Your task to perform on an android device: set default search engine in the chrome app Image 0: 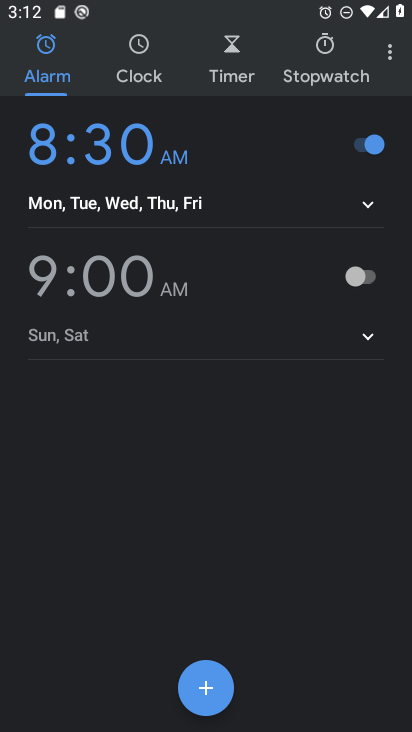
Step 0: press home button
Your task to perform on an android device: set default search engine in the chrome app Image 1: 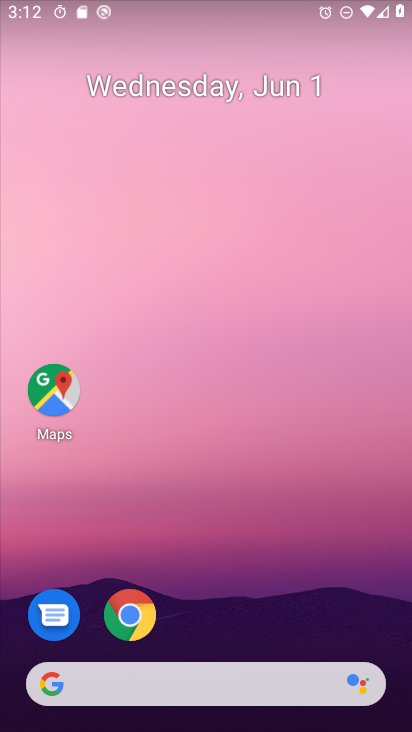
Step 1: drag from (248, 660) to (164, 0)
Your task to perform on an android device: set default search engine in the chrome app Image 2: 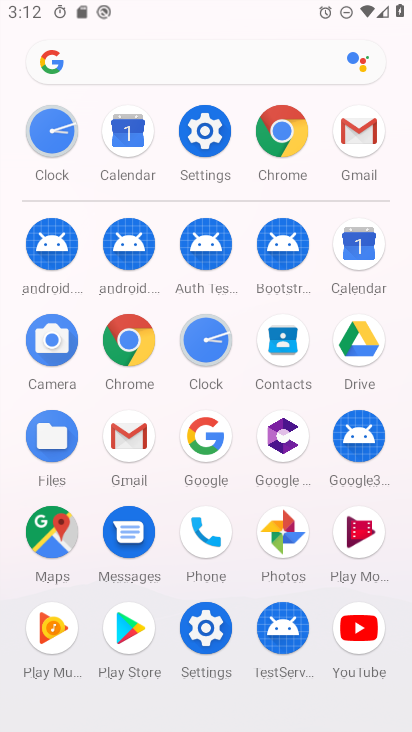
Step 2: click (127, 338)
Your task to perform on an android device: set default search engine in the chrome app Image 3: 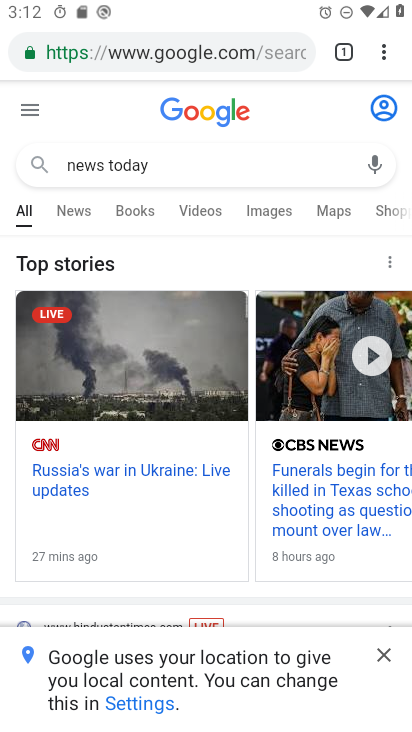
Step 3: drag from (385, 50) to (217, 591)
Your task to perform on an android device: set default search engine in the chrome app Image 4: 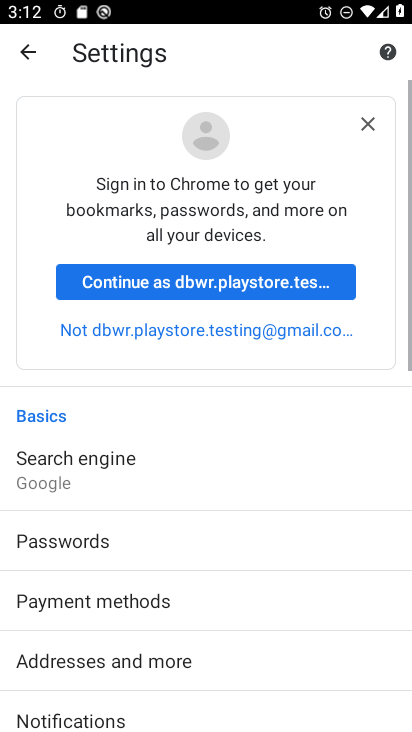
Step 4: drag from (208, 577) to (201, 352)
Your task to perform on an android device: set default search engine in the chrome app Image 5: 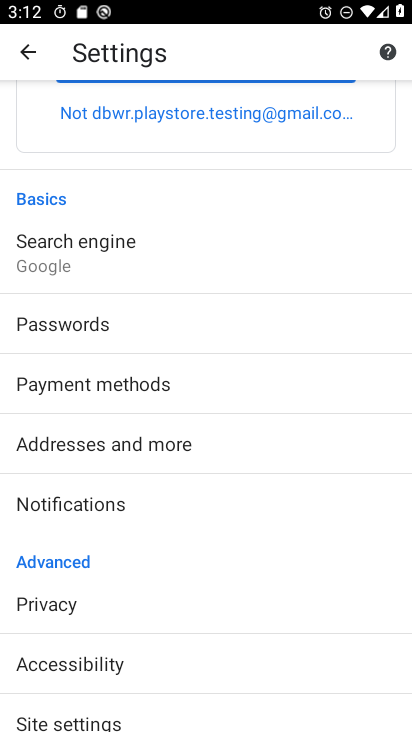
Step 5: click (148, 371)
Your task to perform on an android device: set default search engine in the chrome app Image 6: 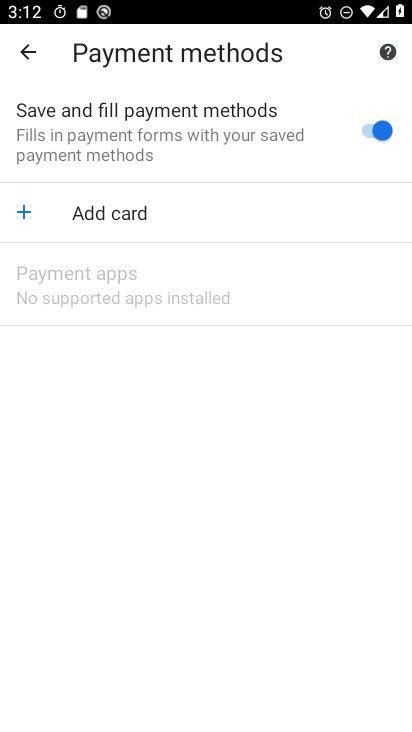
Step 6: press back button
Your task to perform on an android device: set default search engine in the chrome app Image 7: 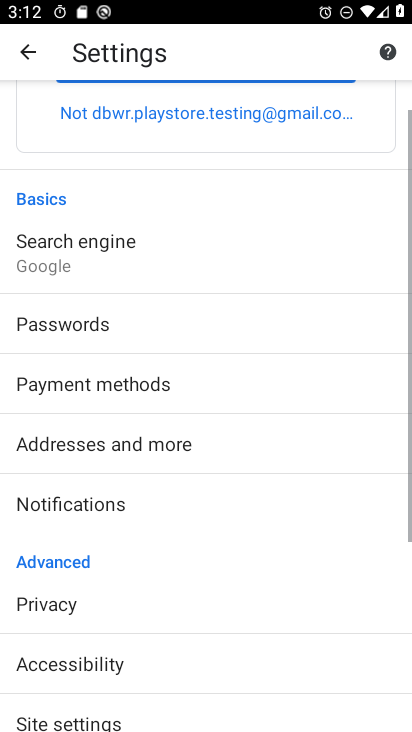
Step 7: click (125, 261)
Your task to perform on an android device: set default search engine in the chrome app Image 8: 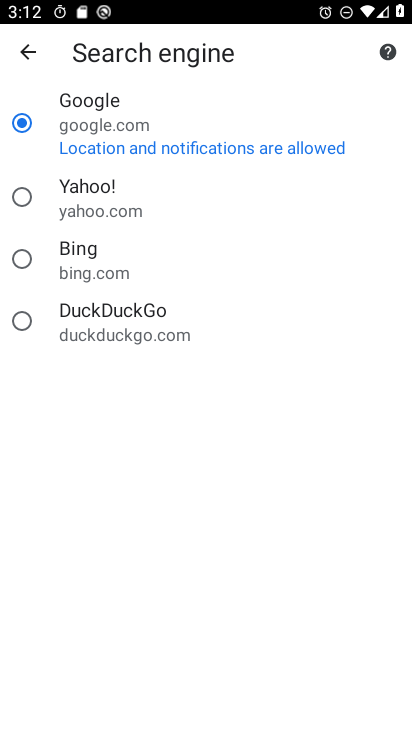
Step 8: task complete